Your task to perform on an android device: turn pop-ups on in chrome Image 0: 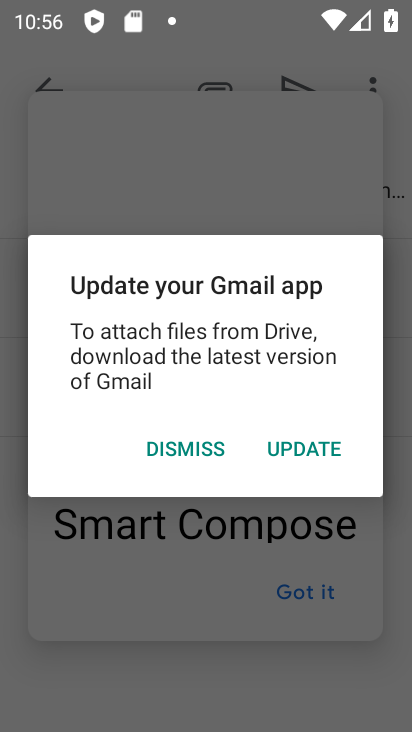
Step 0: press home button
Your task to perform on an android device: turn pop-ups on in chrome Image 1: 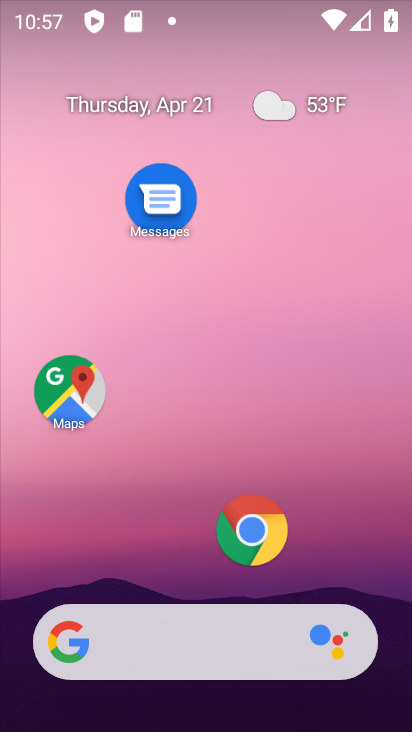
Step 1: click (263, 534)
Your task to perform on an android device: turn pop-ups on in chrome Image 2: 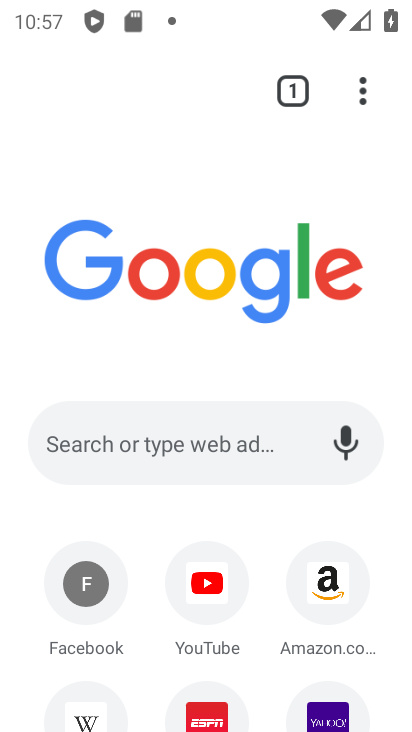
Step 2: drag from (364, 85) to (177, 535)
Your task to perform on an android device: turn pop-ups on in chrome Image 3: 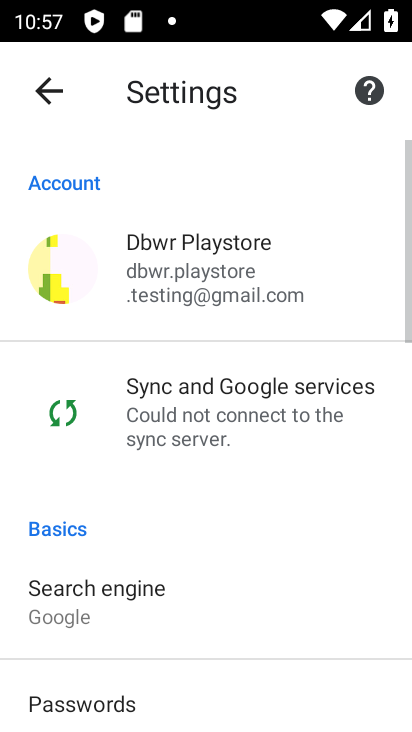
Step 3: drag from (179, 674) to (168, 286)
Your task to perform on an android device: turn pop-ups on in chrome Image 4: 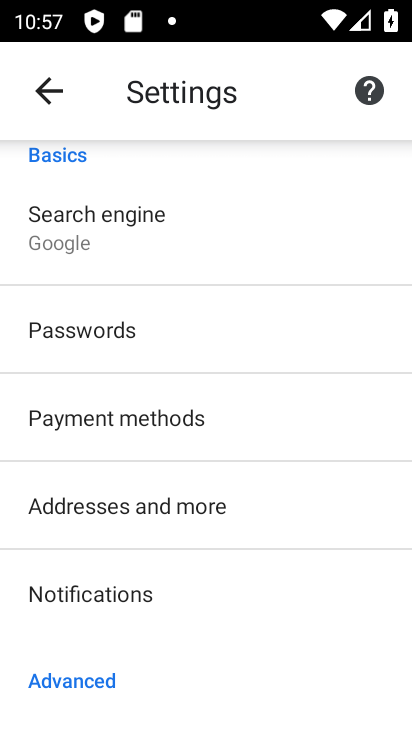
Step 4: drag from (209, 698) to (216, 321)
Your task to perform on an android device: turn pop-ups on in chrome Image 5: 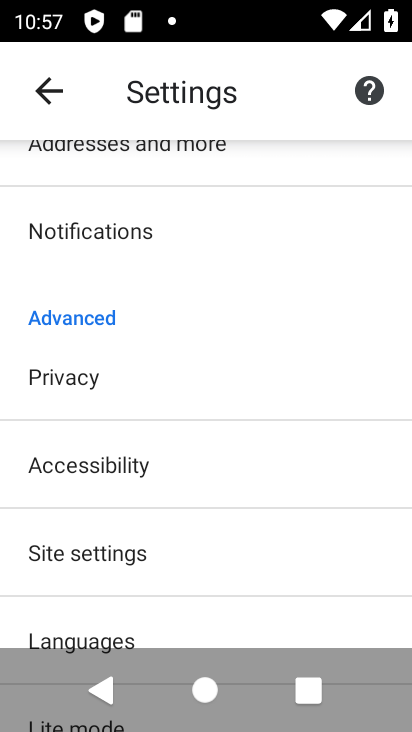
Step 5: click (196, 545)
Your task to perform on an android device: turn pop-ups on in chrome Image 6: 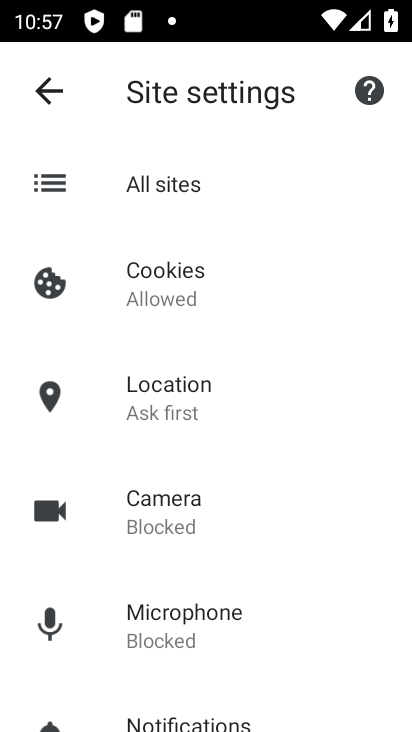
Step 6: drag from (189, 686) to (187, 264)
Your task to perform on an android device: turn pop-ups on in chrome Image 7: 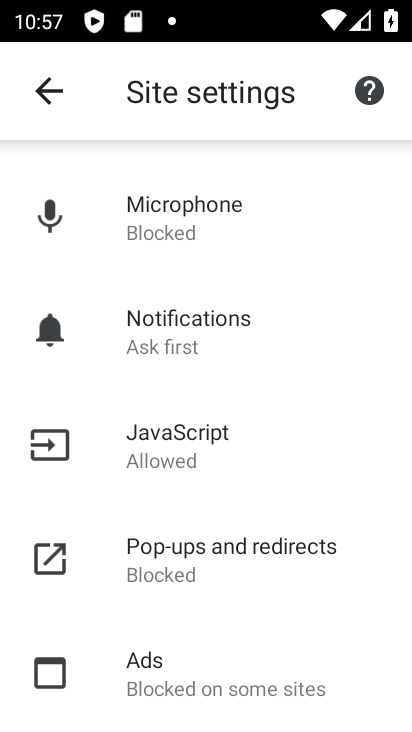
Step 7: click (207, 544)
Your task to perform on an android device: turn pop-ups on in chrome Image 8: 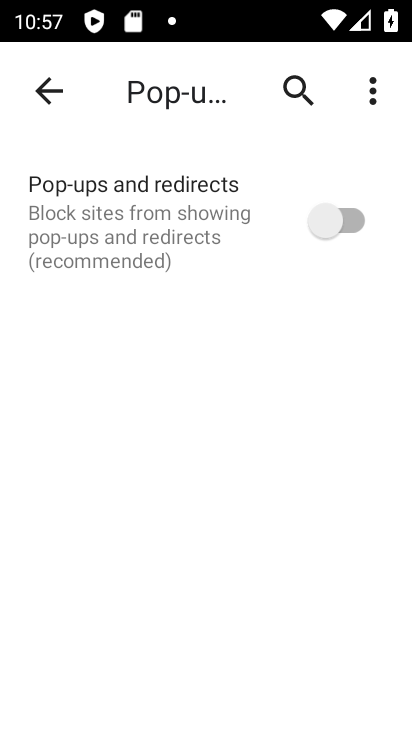
Step 8: click (356, 219)
Your task to perform on an android device: turn pop-ups on in chrome Image 9: 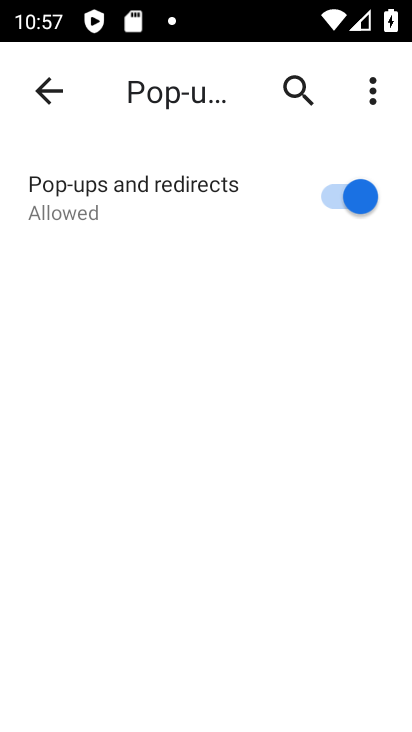
Step 9: task complete